Your task to perform on an android device: delete browsing data in the chrome app Image 0: 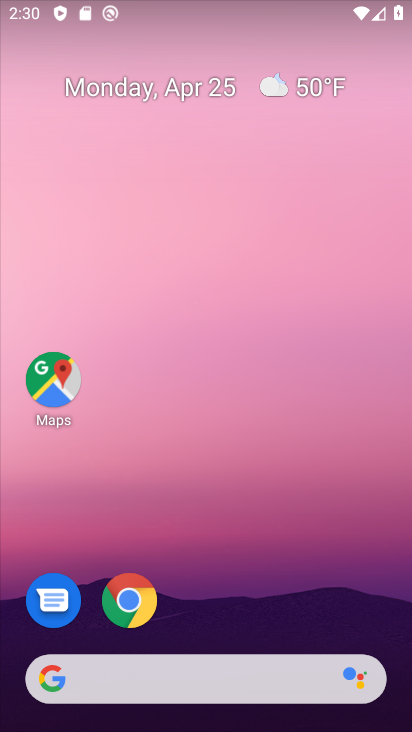
Step 0: click (359, 71)
Your task to perform on an android device: delete browsing data in the chrome app Image 1: 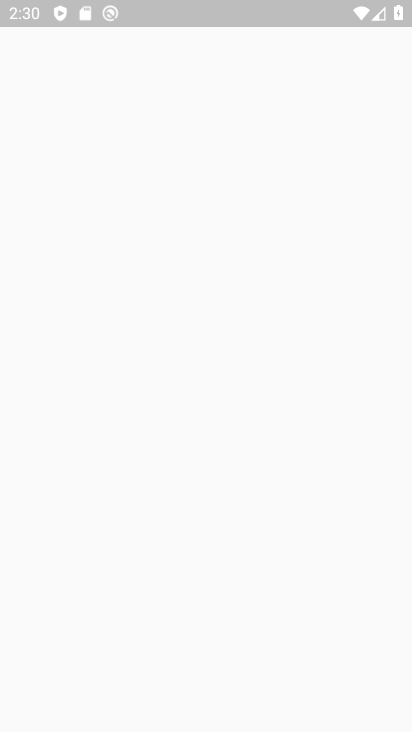
Step 1: drag from (358, 552) to (320, 144)
Your task to perform on an android device: delete browsing data in the chrome app Image 2: 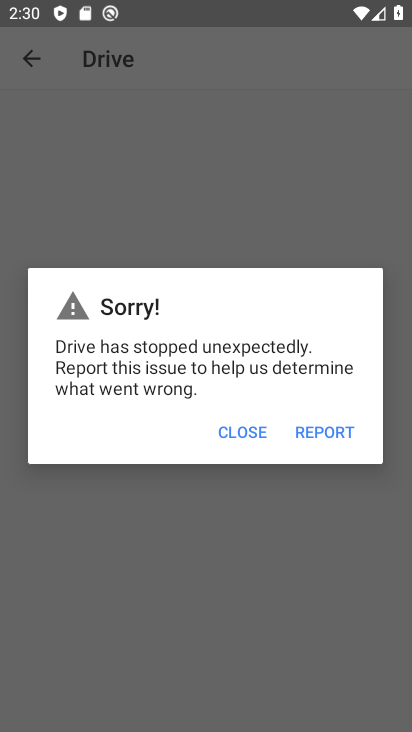
Step 2: press home button
Your task to perform on an android device: delete browsing data in the chrome app Image 3: 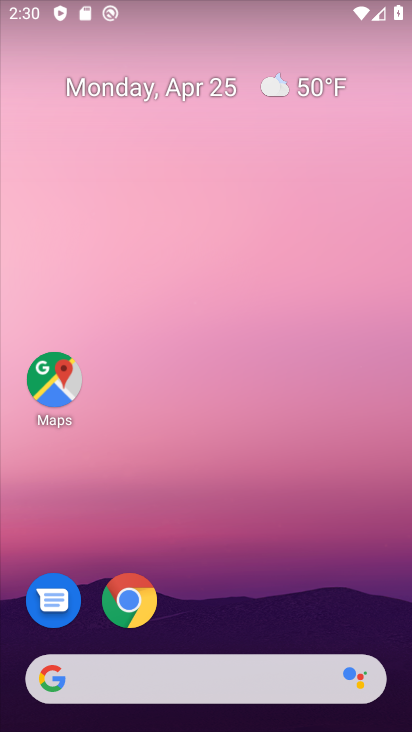
Step 3: drag from (330, 569) to (328, 254)
Your task to perform on an android device: delete browsing data in the chrome app Image 4: 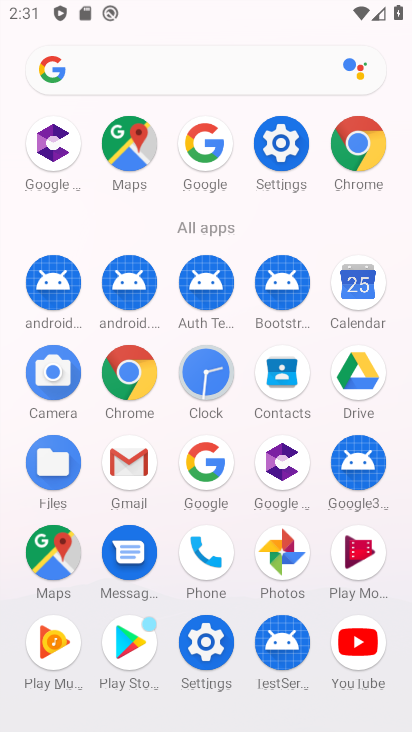
Step 4: click (360, 161)
Your task to perform on an android device: delete browsing data in the chrome app Image 5: 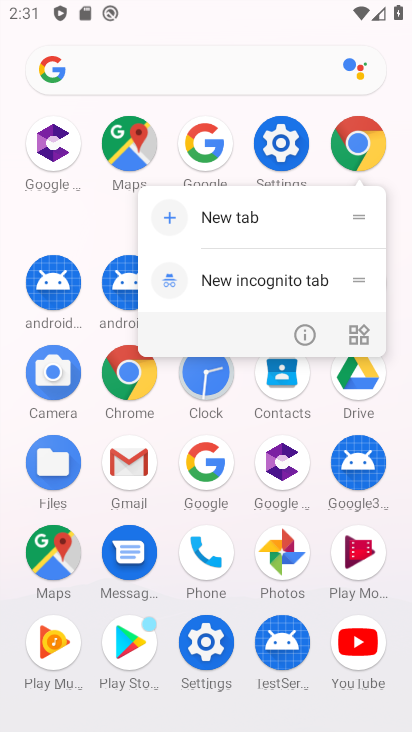
Step 5: click (359, 169)
Your task to perform on an android device: delete browsing data in the chrome app Image 6: 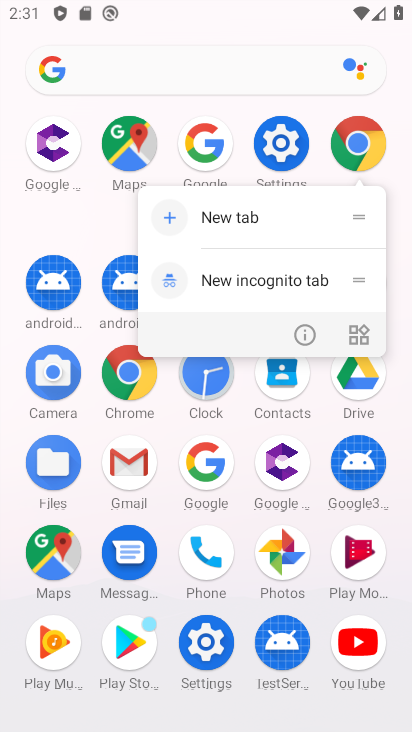
Step 6: click (362, 169)
Your task to perform on an android device: delete browsing data in the chrome app Image 7: 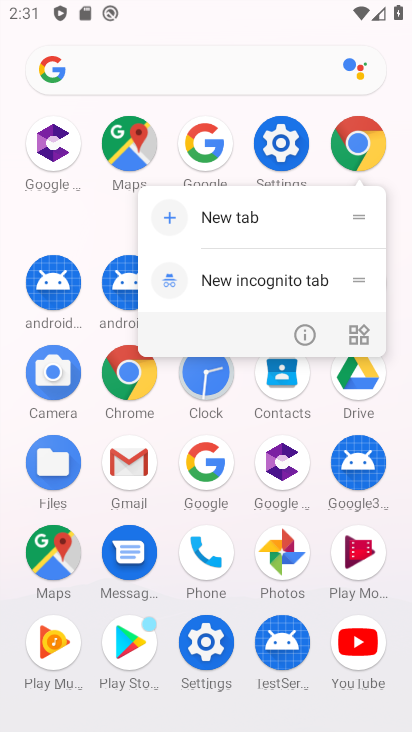
Step 7: click (370, 156)
Your task to perform on an android device: delete browsing data in the chrome app Image 8: 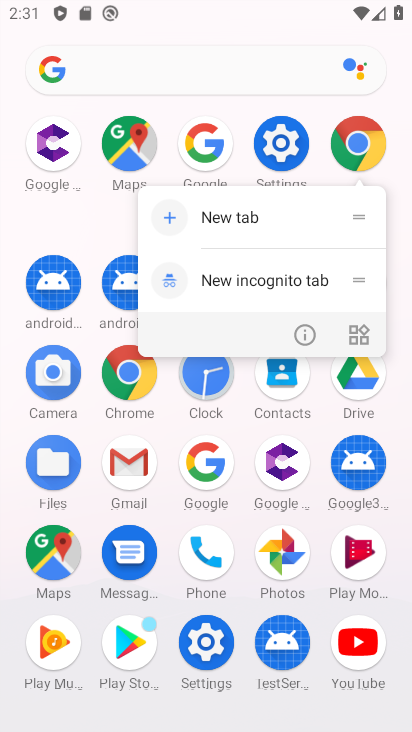
Step 8: click (388, 134)
Your task to perform on an android device: delete browsing data in the chrome app Image 9: 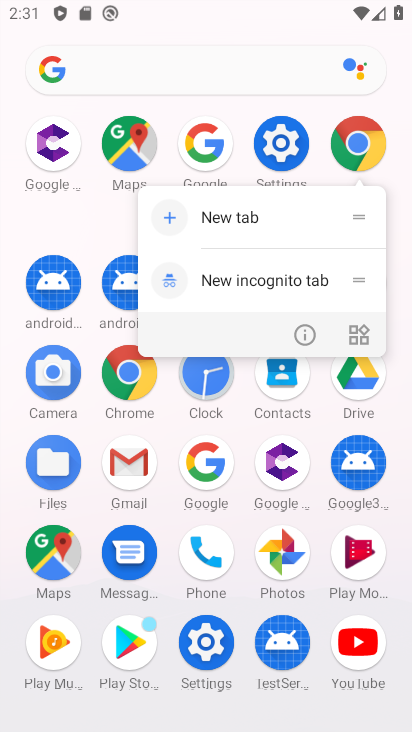
Step 9: click (372, 166)
Your task to perform on an android device: delete browsing data in the chrome app Image 10: 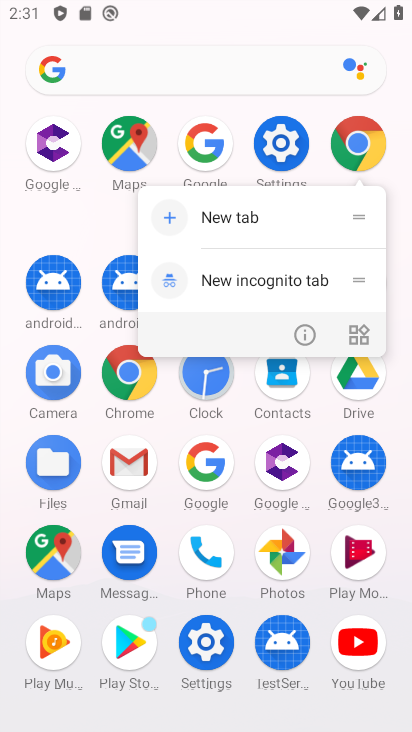
Step 10: click (369, 135)
Your task to perform on an android device: delete browsing data in the chrome app Image 11: 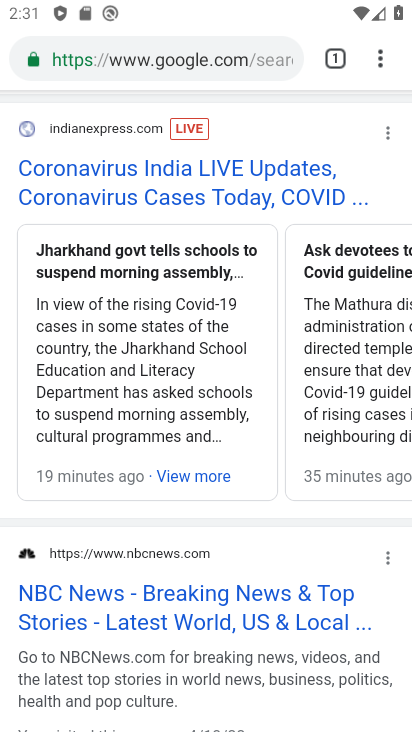
Step 11: task complete